Your task to perform on an android device: Open Reddit.com Image 0: 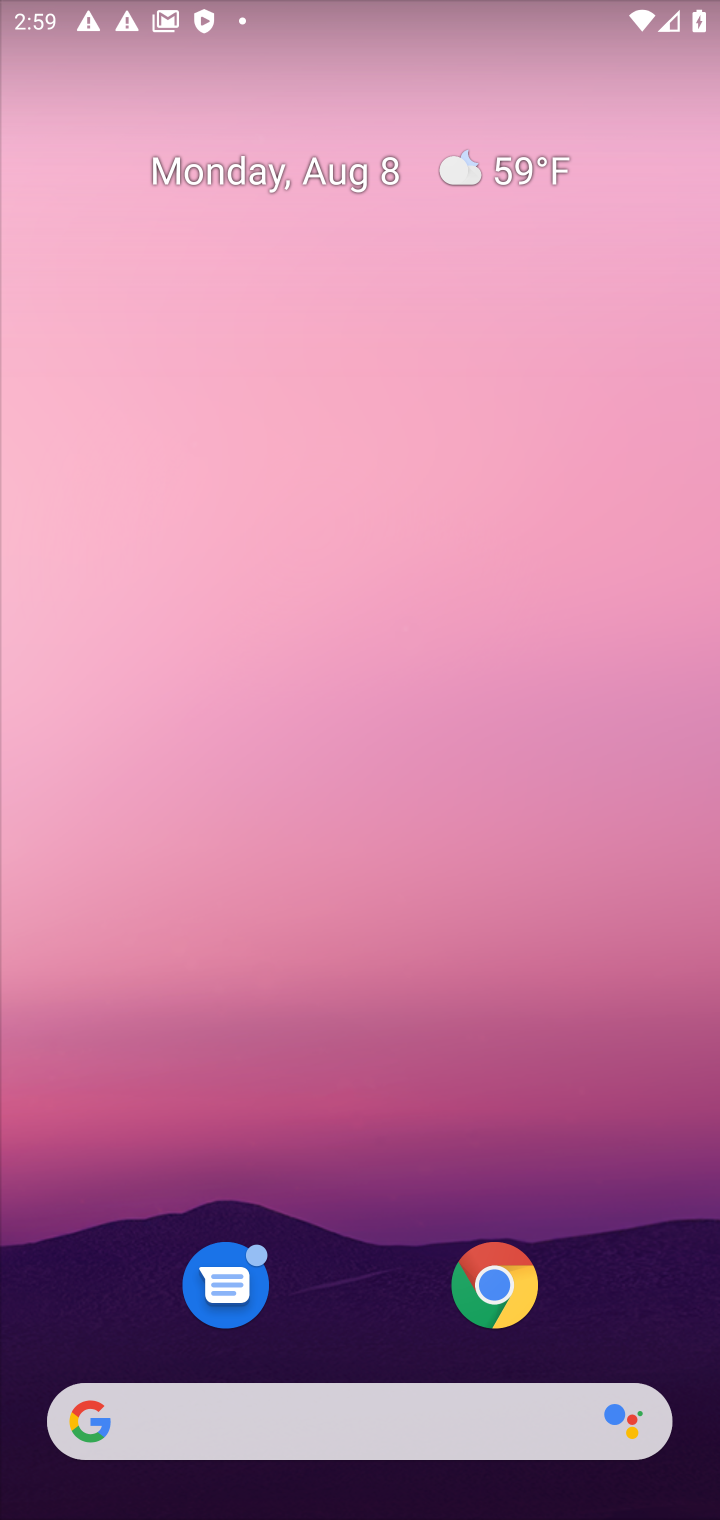
Step 0: click (516, 1288)
Your task to perform on an android device: Open Reddit.com Image 1: 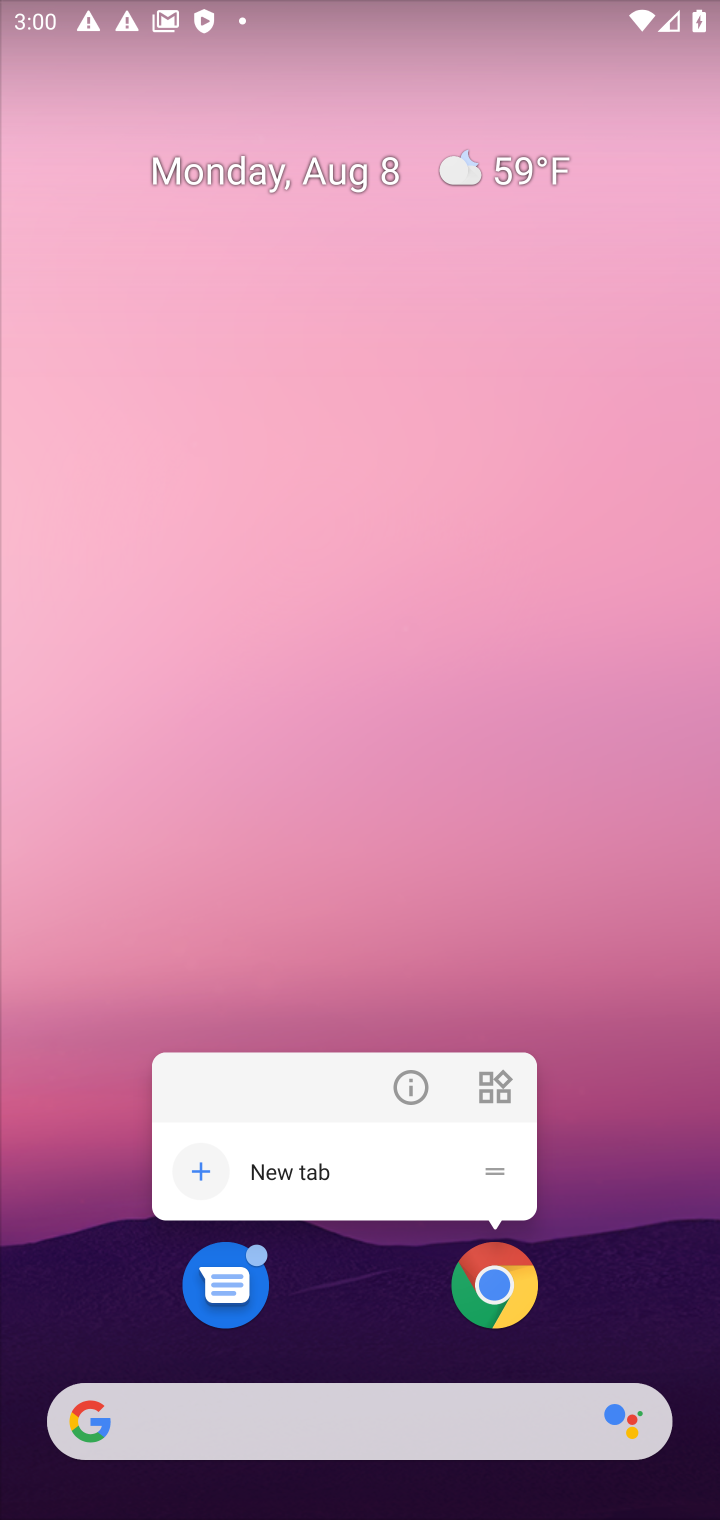
Step 1: click (518, 1304)
Your task to perform on an android device: Open Reddit.com Image 2: 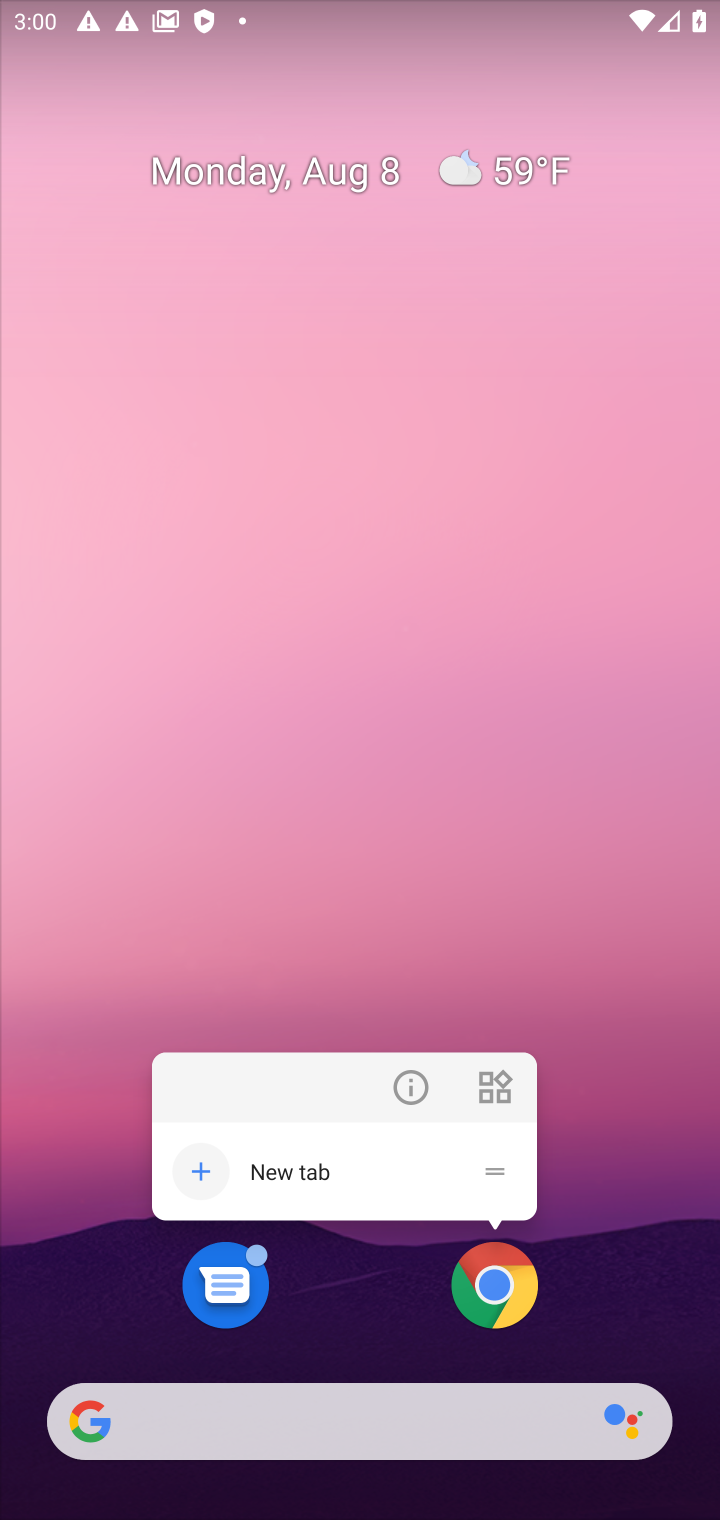
Step 2: click (518, 1302)
Your task to perform on an android device: Open Reddit.com Image 3: 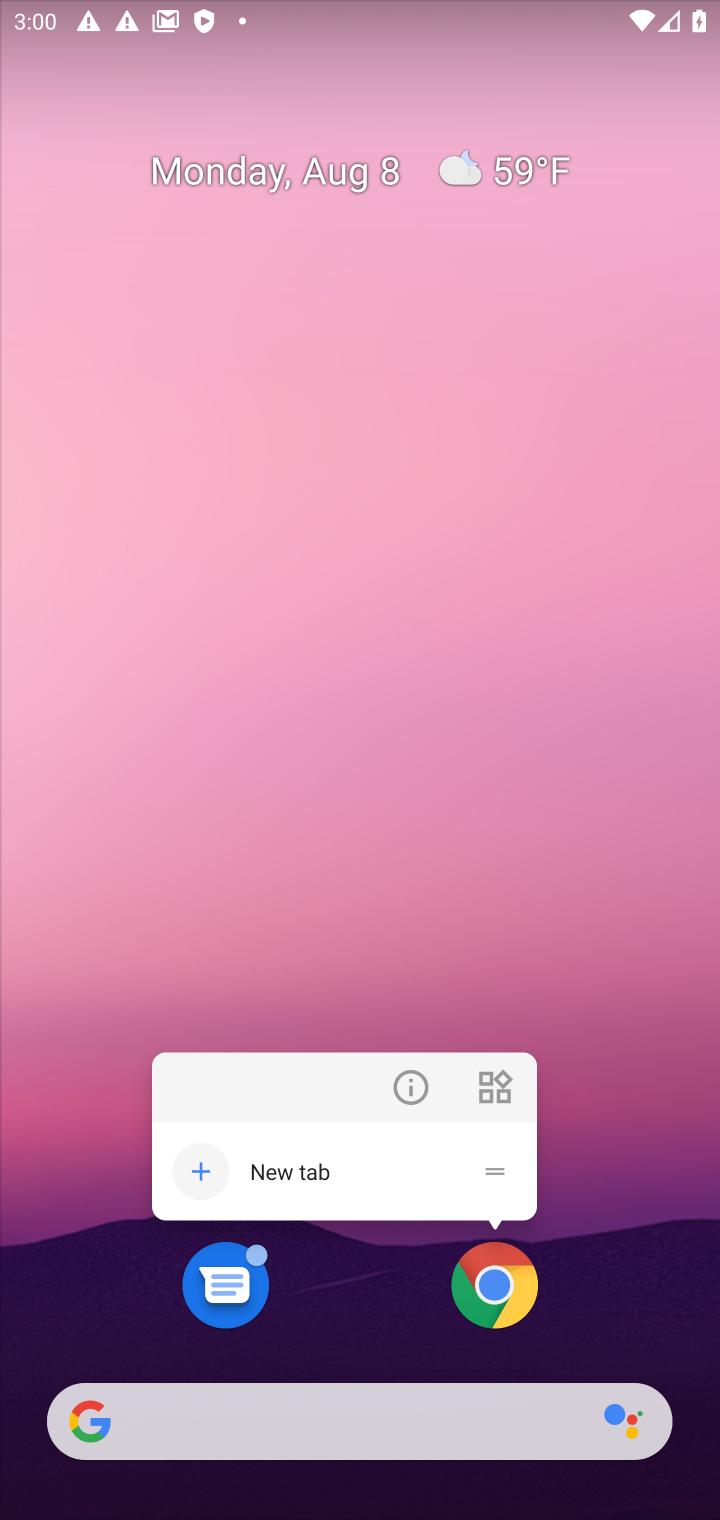
Step 3: click (512, 1296)
Your task to perform on an android device: Open Reddit.com Image 4: 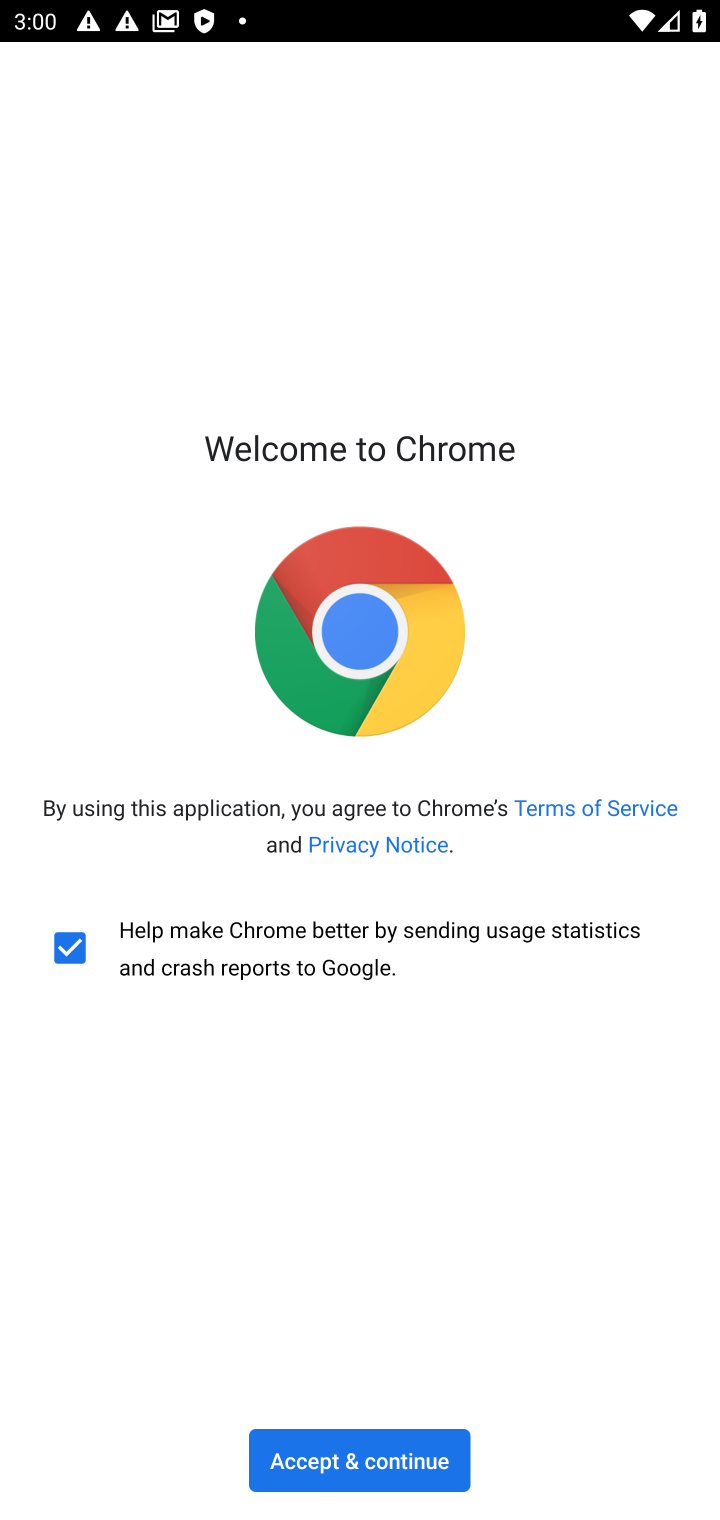
Step 4: click (359, 1476)
Your task to perform on an android device: Open Reddit.com Image 5: 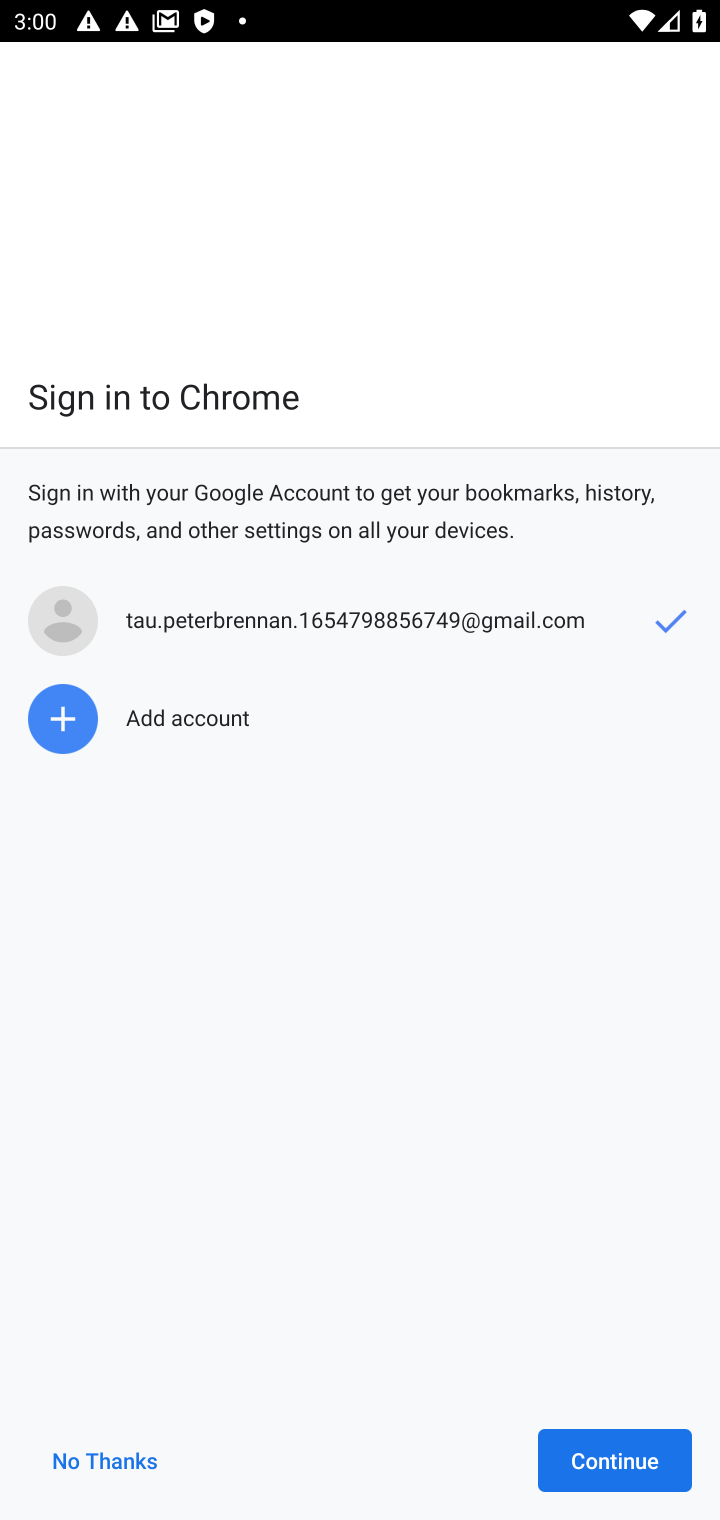
Step 5: click (612, 1453)
Your task to perform on an android device: Open Reddit.com Image 6: 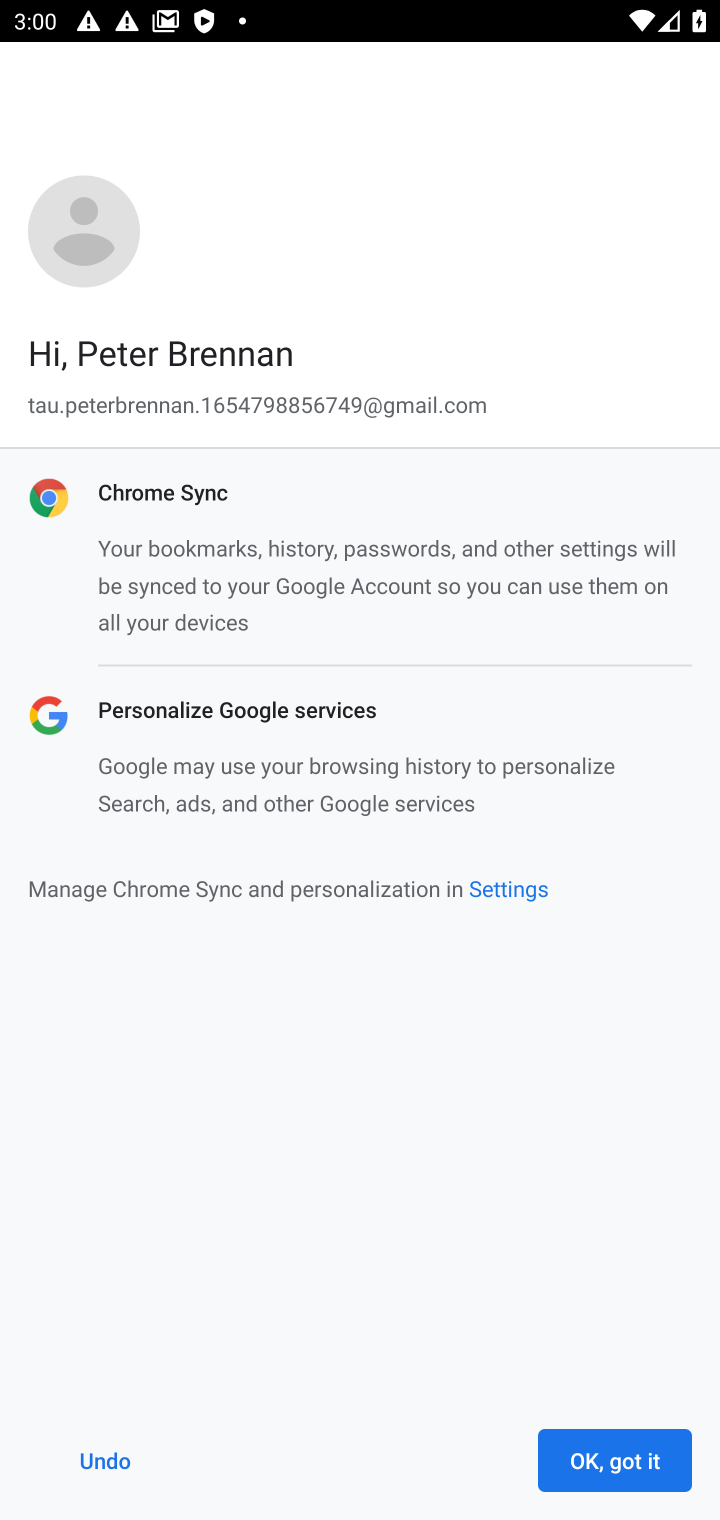
Step 6: click (642, 1464)
Your task to perform on an android device: Open Reddit.com Image 7: 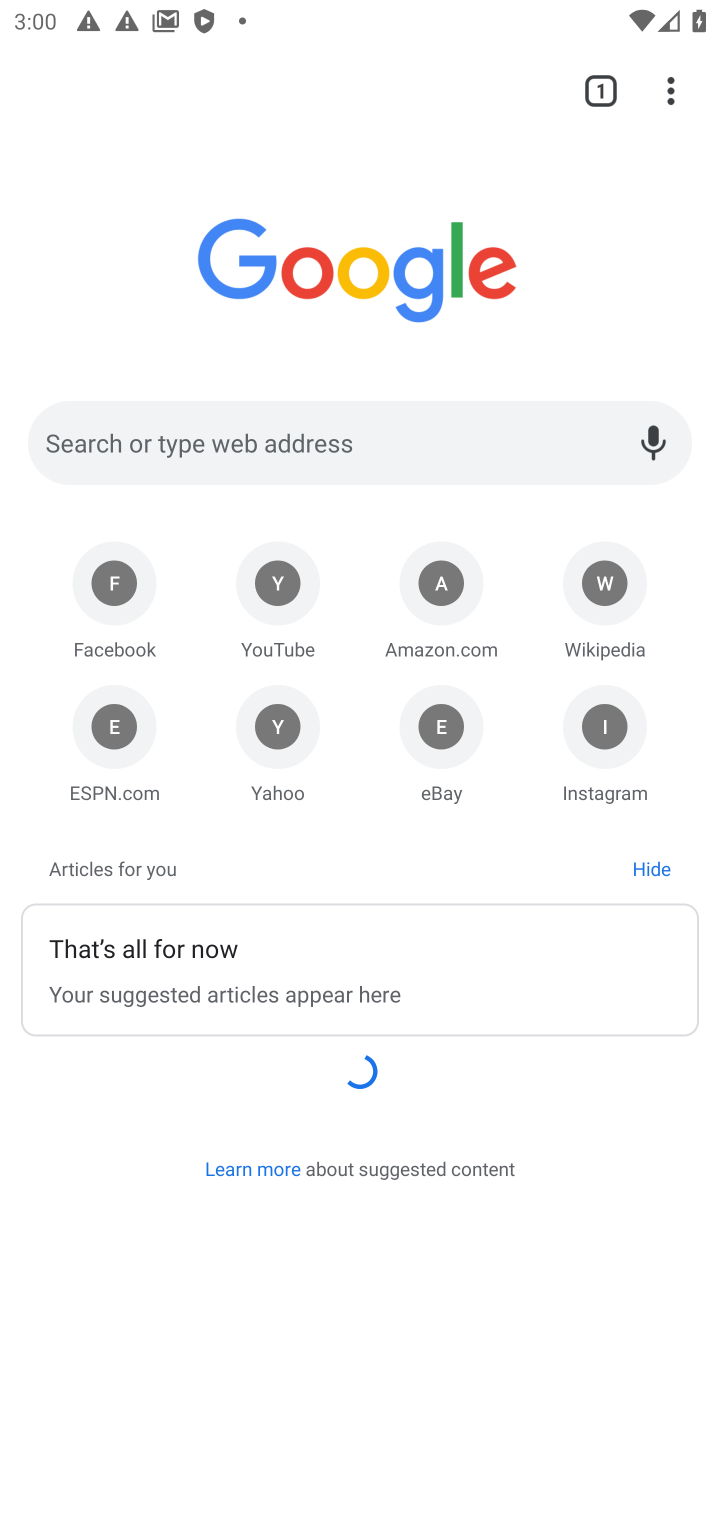
Step 7: click (183, 421)
Your task to perform on an android device: Open Reddit.com Image 8: 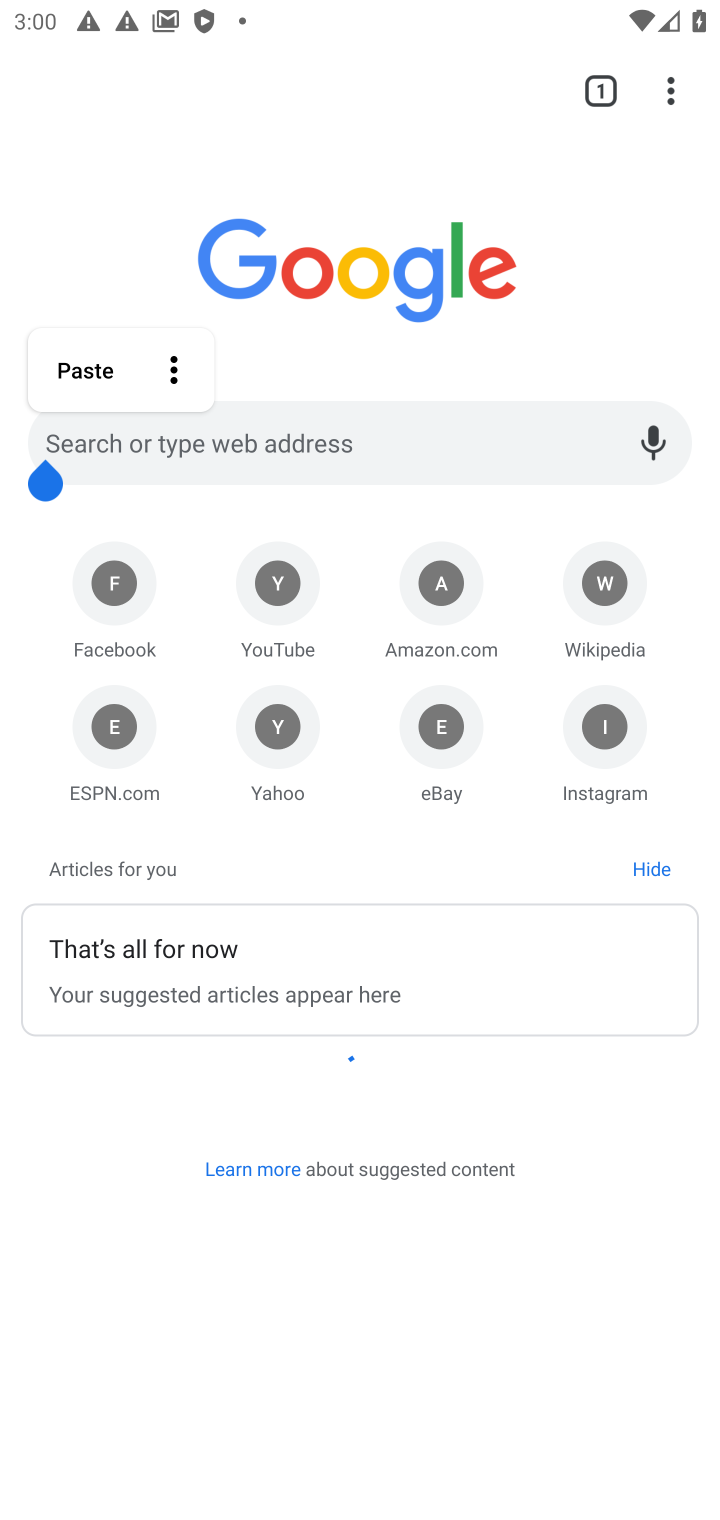
Step 8: type "reddit.com"
Your task to perform on an android device: Open Reddit.com Image 9: 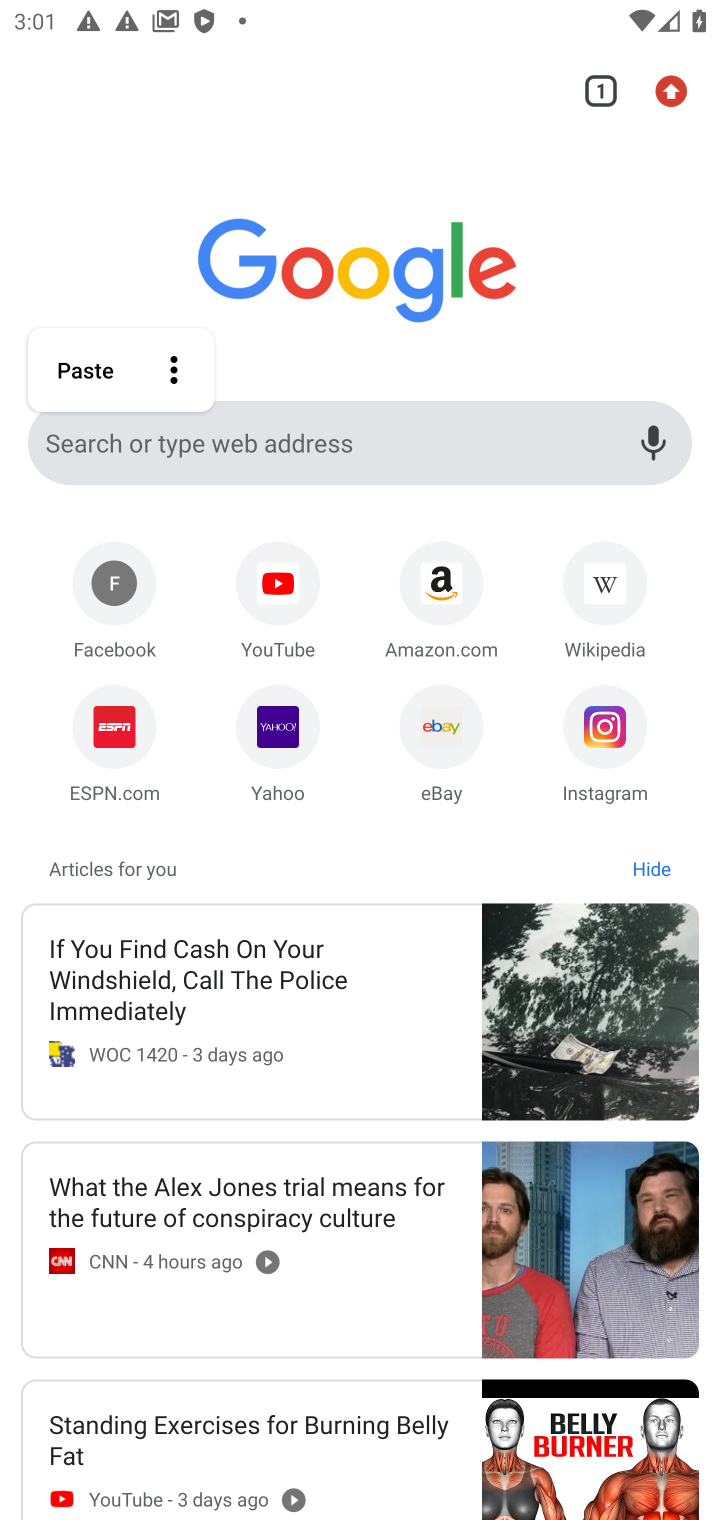
Step 9: click (266, 452)
Your task to perform on an android device: Open Reddit.com Image 10: 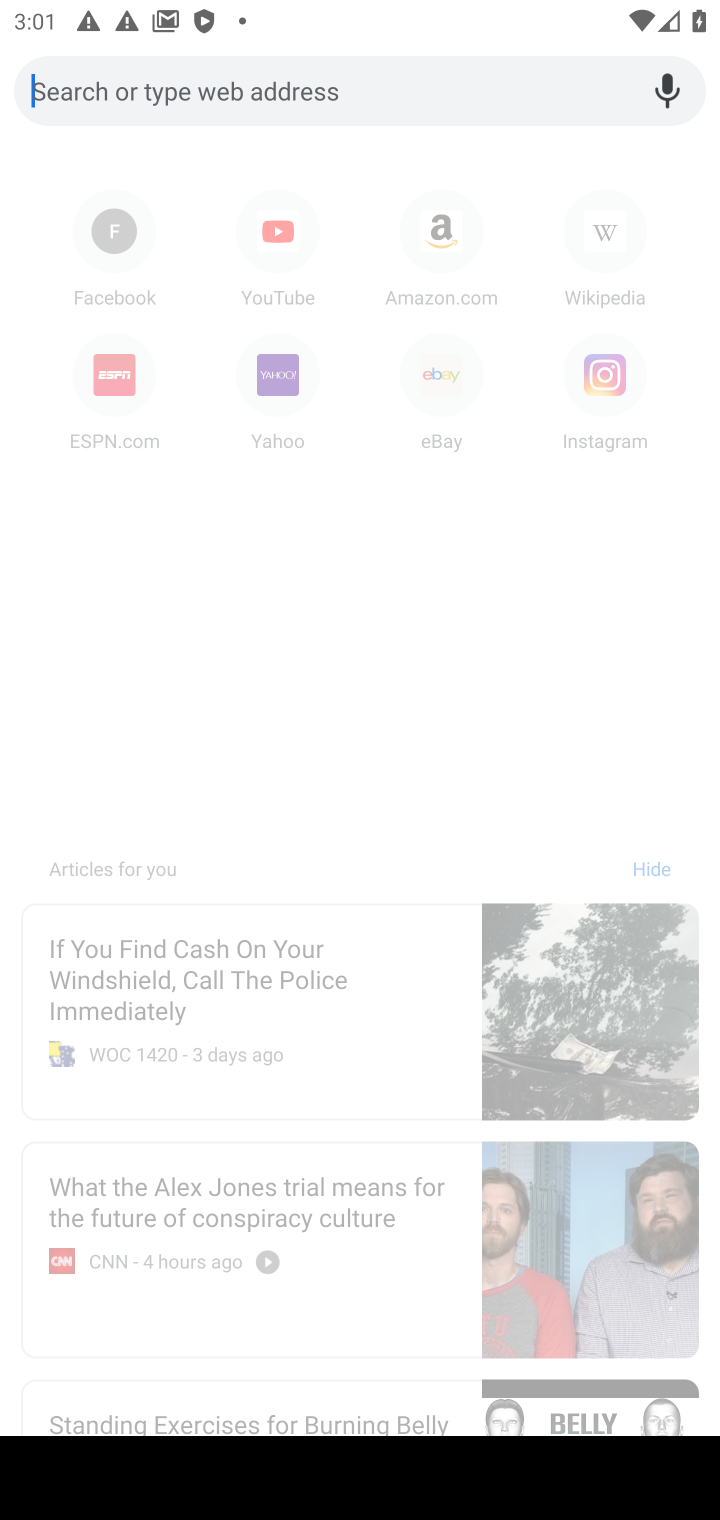
Step 10: click (162, 58)
Your task to perform on an android device: Open Reddit.com Image 11: 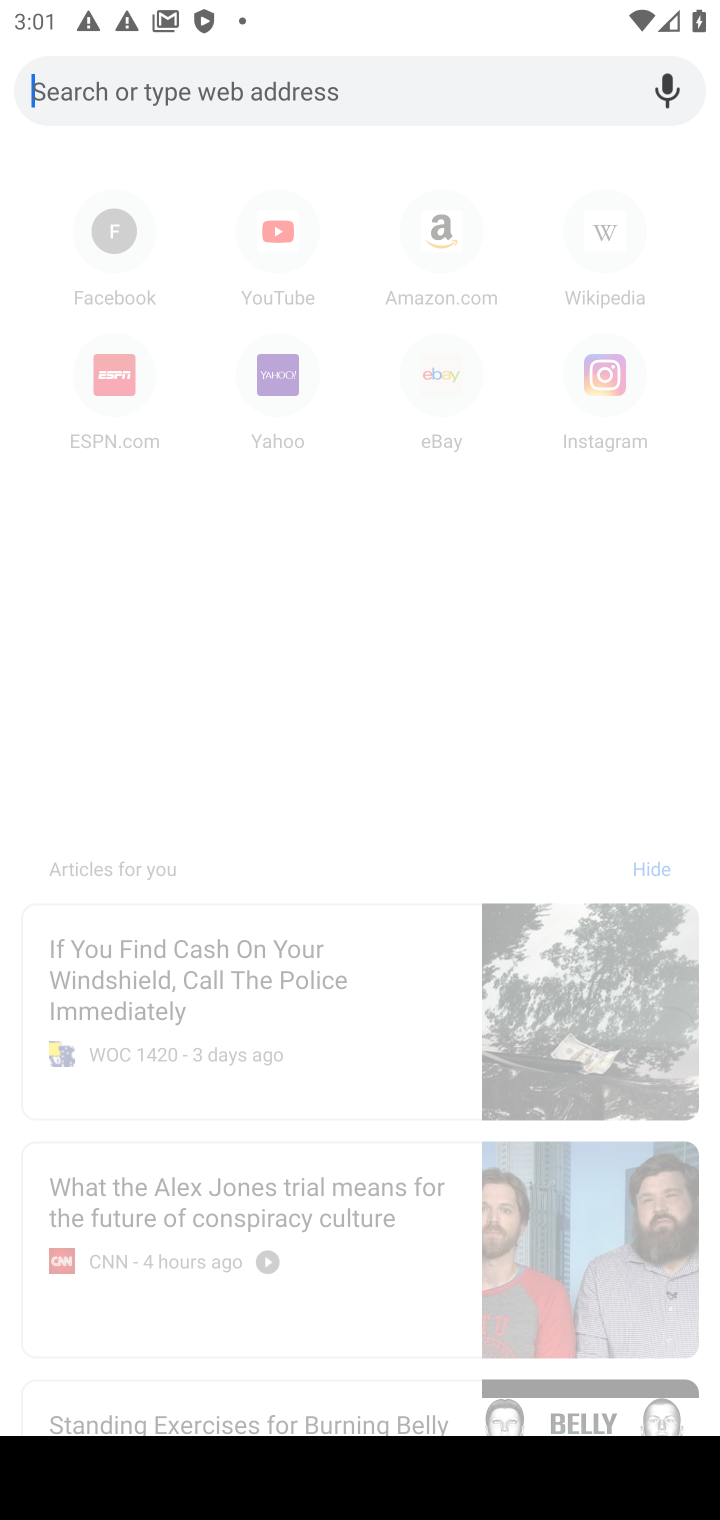
Step 11: type "reddit.com"
Your task to perform on an android device: Open Reddit.com Image 12: 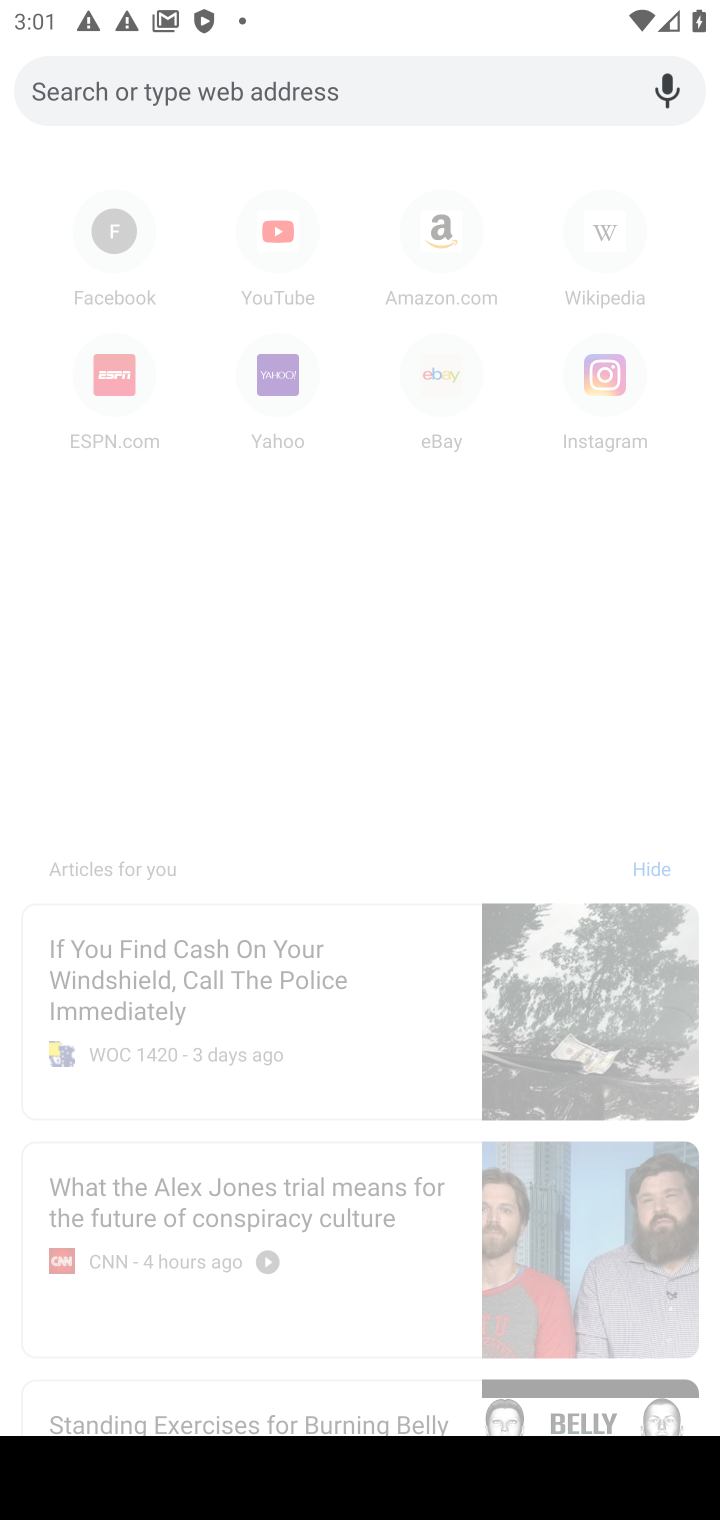
Step 12: click (477, 601)
Your task to perform on an android device: Open Reddit.com Image 13: 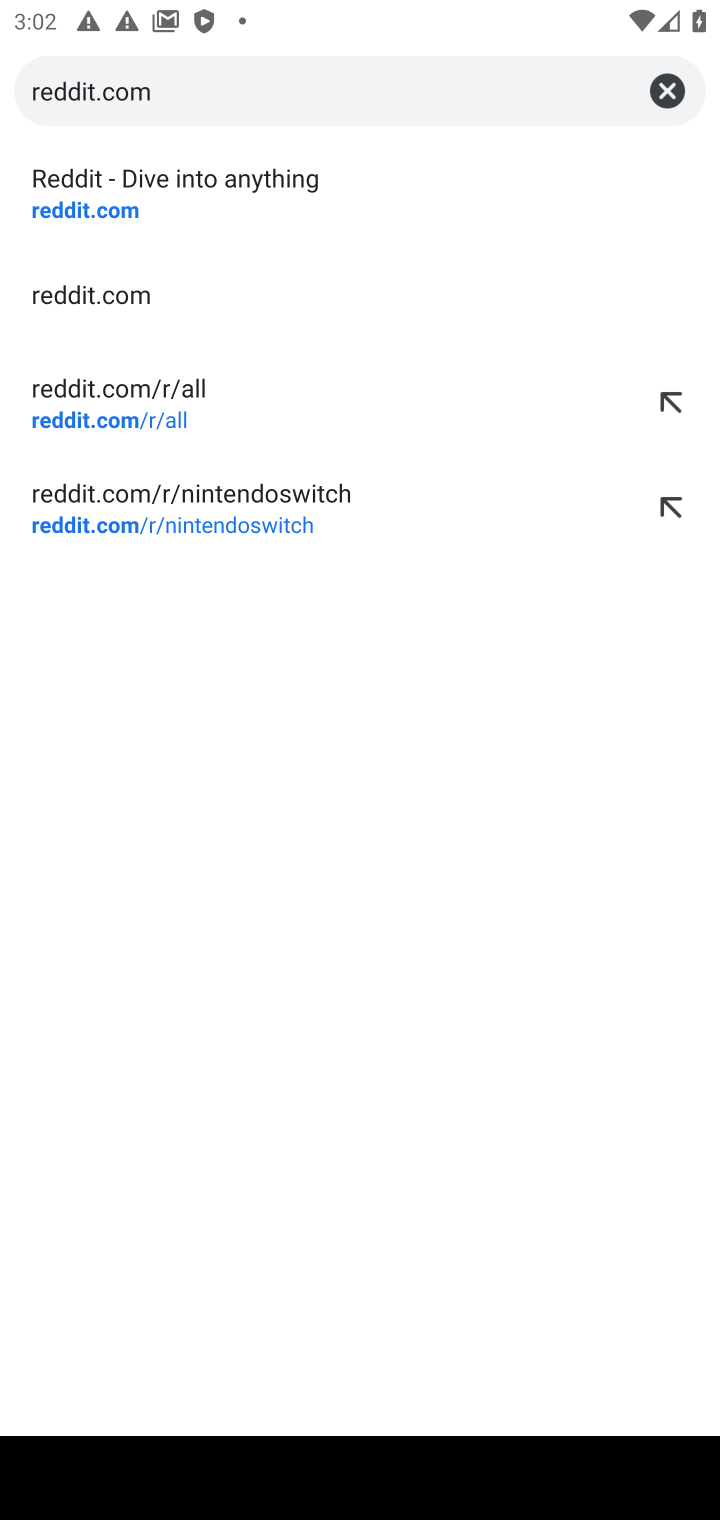
Step 13: click (134, 179)
Your task to perform on an android device: Open Reddit.com Image 14: 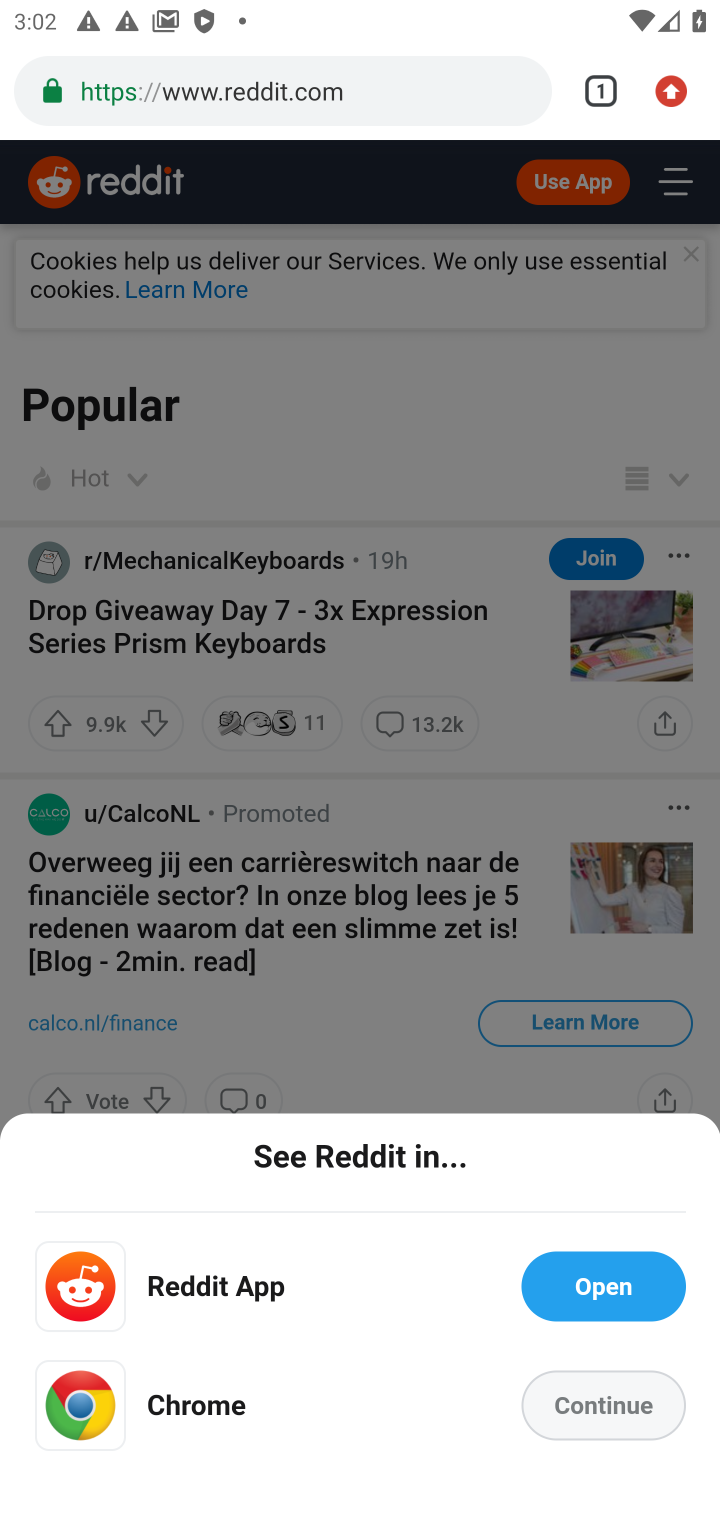
Step 14: task complete